Your task to perform on an android device: show emergency info Image 0: 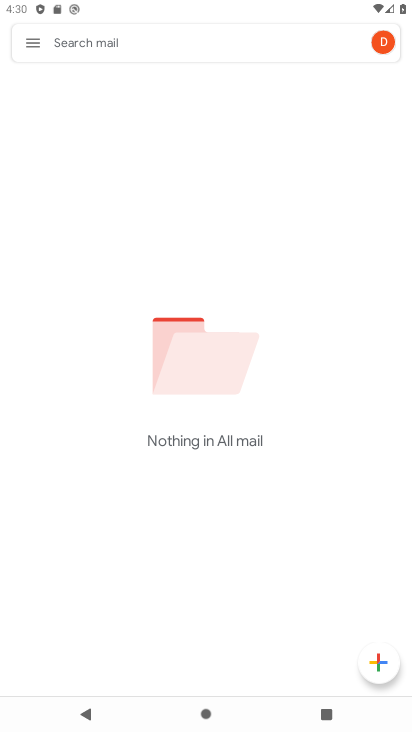
Step 0: press home button
Your task to perform on an android device: show emergency info Image 1: 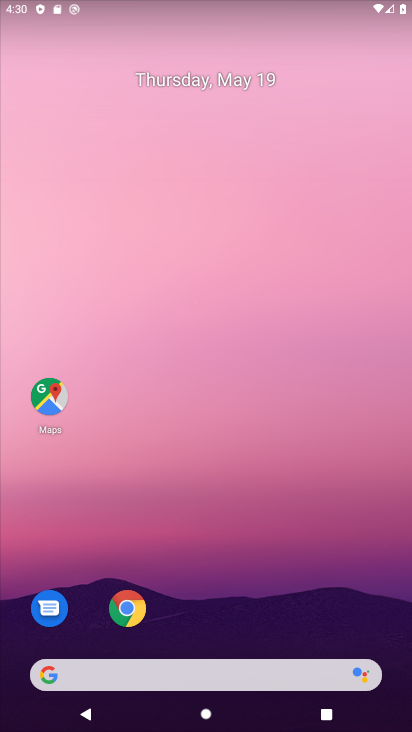
Step 1: drag from (204, 564) to (216, 159)
Your task to perform on an android device: show emergency info Image 2: 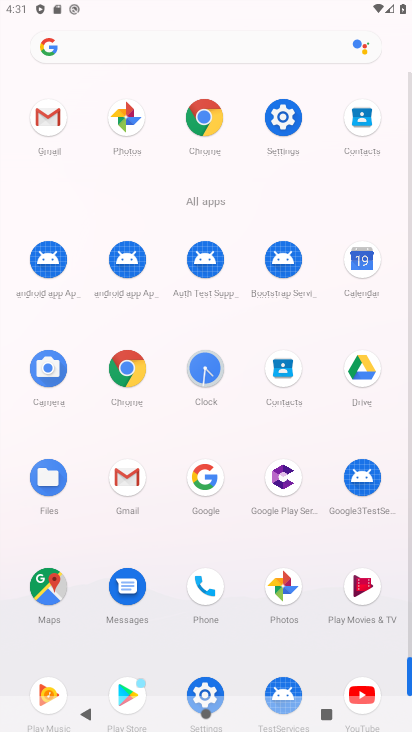
Step 2: click (281, 118)
Your task to perform on an android device: show emergency info Image 3: 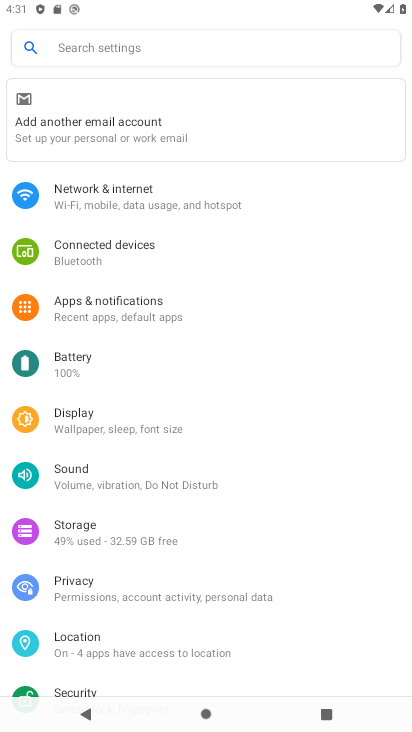
Step 3: drag from (140, 639) to (220, 140)
Your task to perform on an android device: show emergency info Image 4: 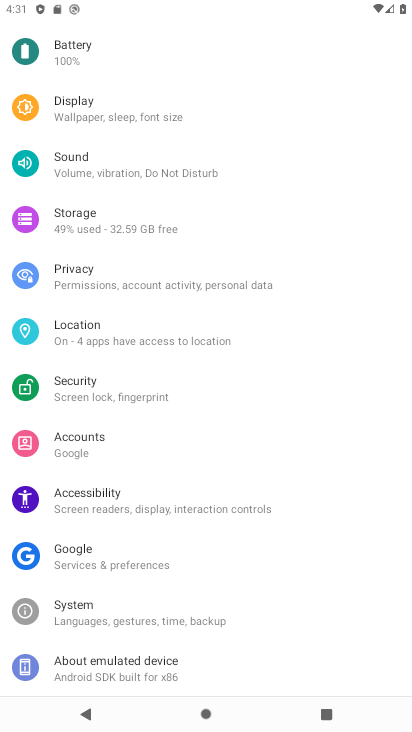
Step 4: click (120, 667)
Your task to perform on an android device: show emergency info Image 5: 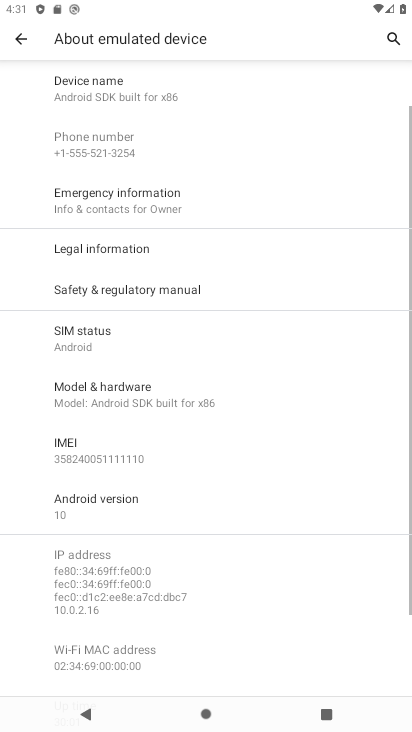
Step 5: click (139, 215)
Your task to perform on an android device: show emergency info Image 6: 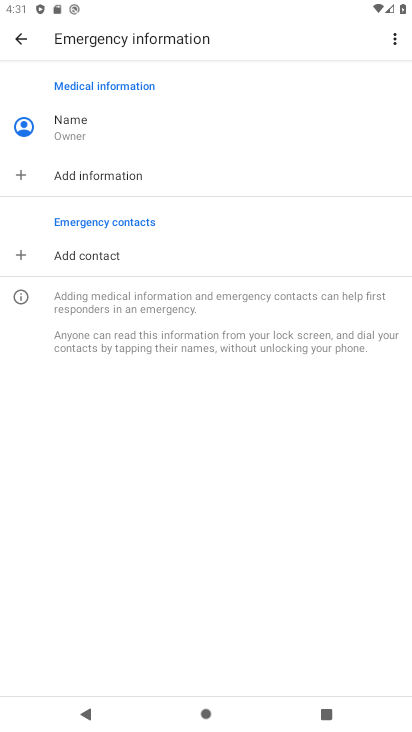
Step 6: task complete